Your task to perform on an android device: open device folders in google photos Image 0: 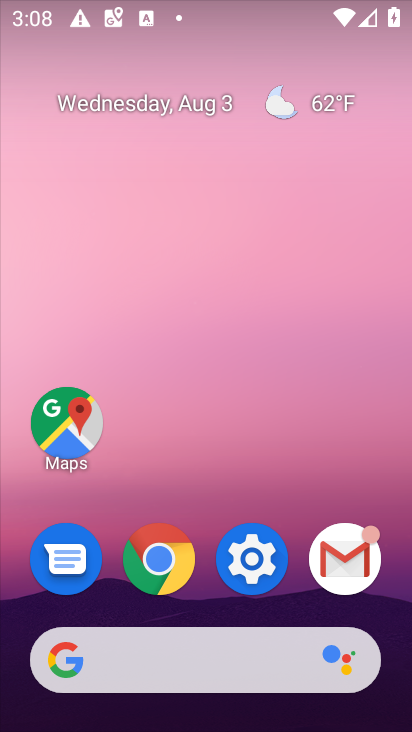
Step 0: press home button
Your task to perform on an android device: open device folders in google photos Image 1: 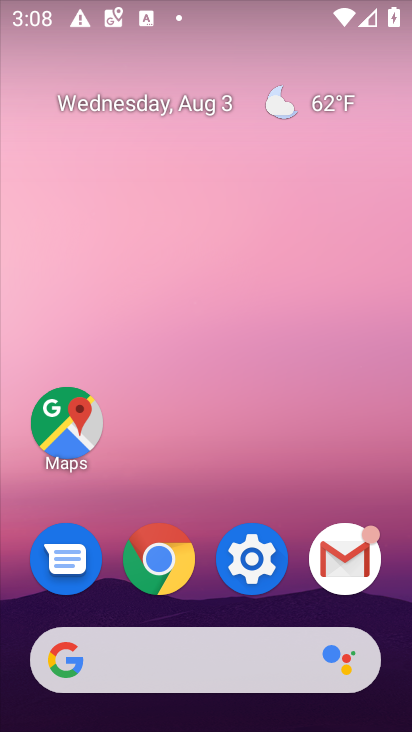
Step 1: drag from (222, 686) to (143, 157)
Your task to perform on an android device: open device folders in google photos Image 2: 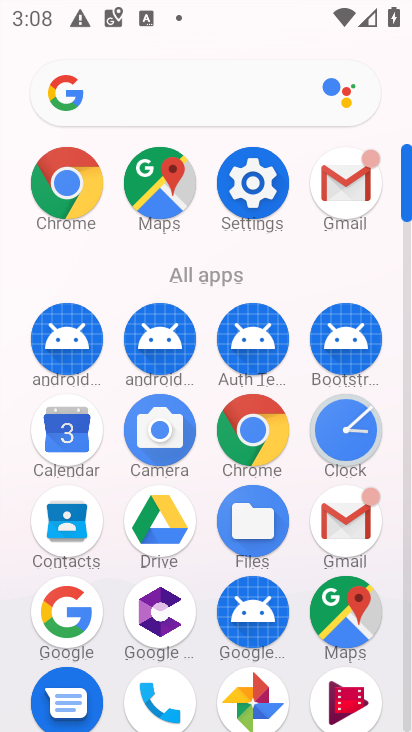
Step 2: click (263, 689)
Your task to perform on an android device: open device folders in google photos Image 3: 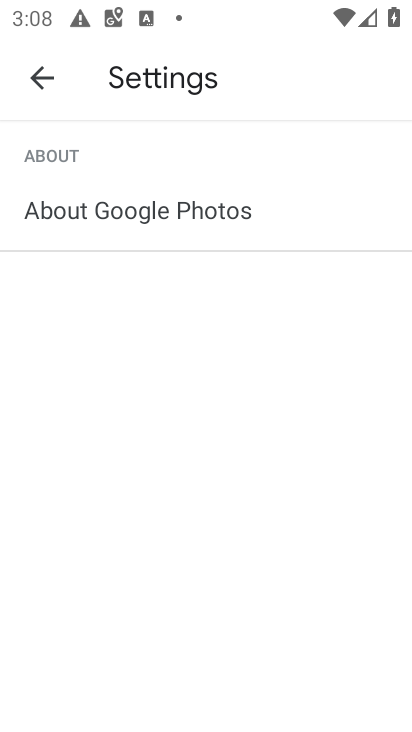
Step 3: click (23, 76)
Your task to perform on an android device: open device folders in google photos Image 4: 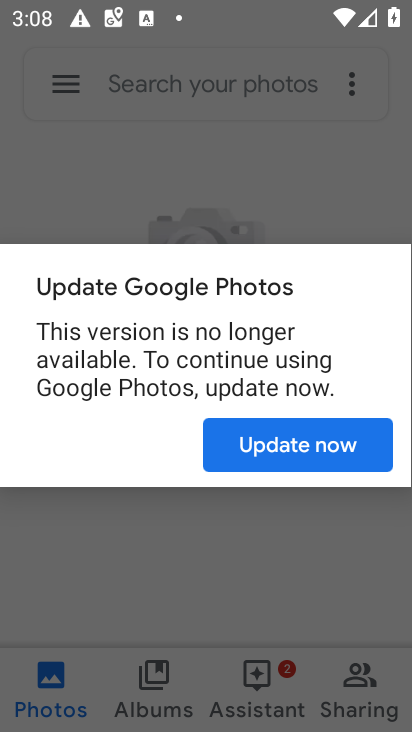
Step 4: click (302, 482)
Your task to perform on an android device: open device folders in google photos Image 5: 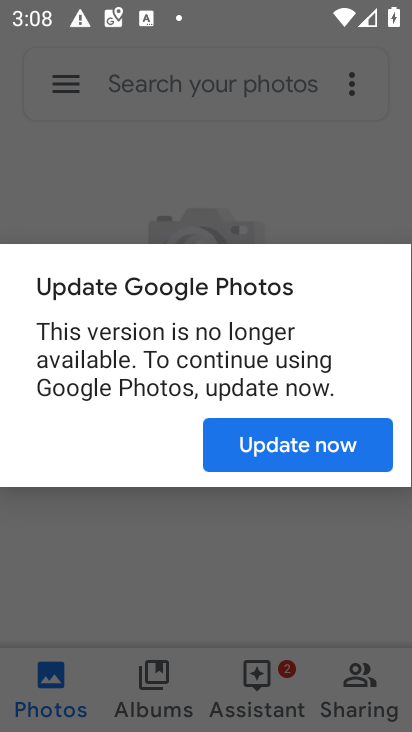
Step 5: click (274, 441)
Your task to perform on an android device: open device folders in google photos Image 6: 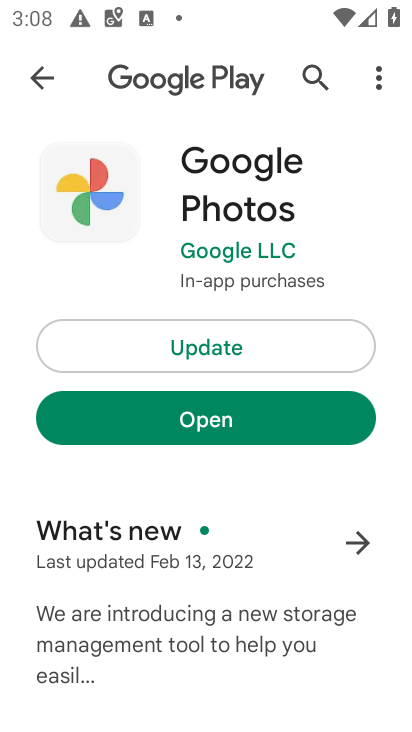
Step 6: click (178, 352)
Your task to perform on an android device: open device folders in google photos Image 7: 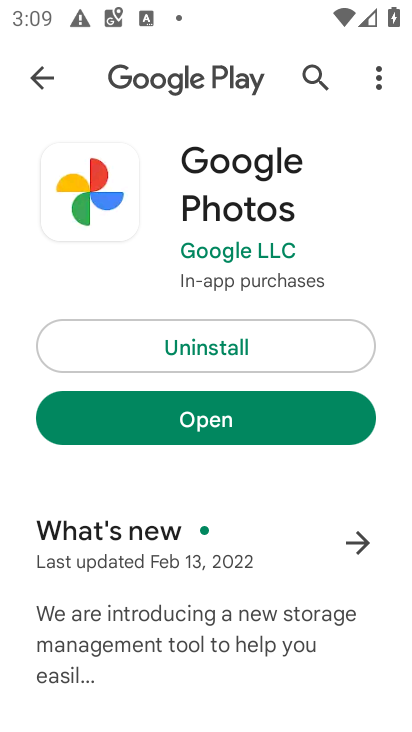
Step 7: click (283, 425)
Your task to perform on an android device: open device folders in google photos Image 8: 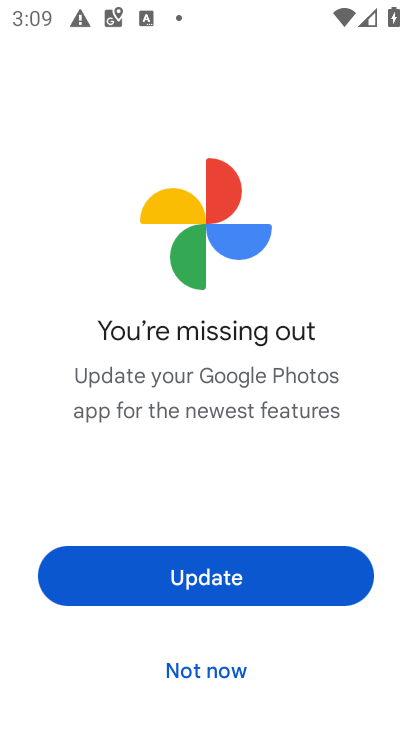
Step 8: click (220, 666)
Your task to perform on an android device: open device folders in google photos Image 9: 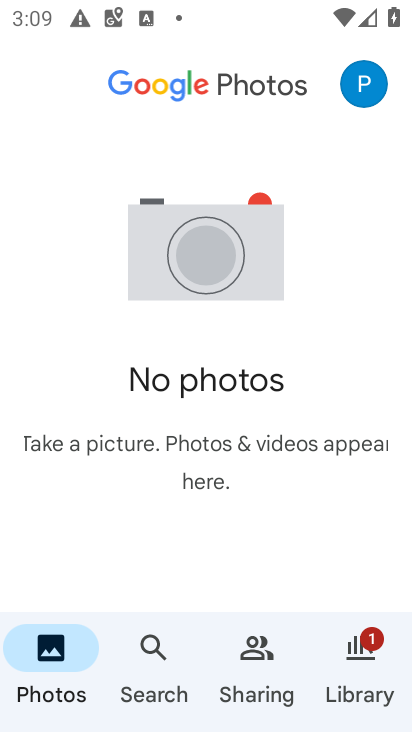
Step 9: click (140, 659)
Your task to perform on an android device: open device folders in google photos Image 10: 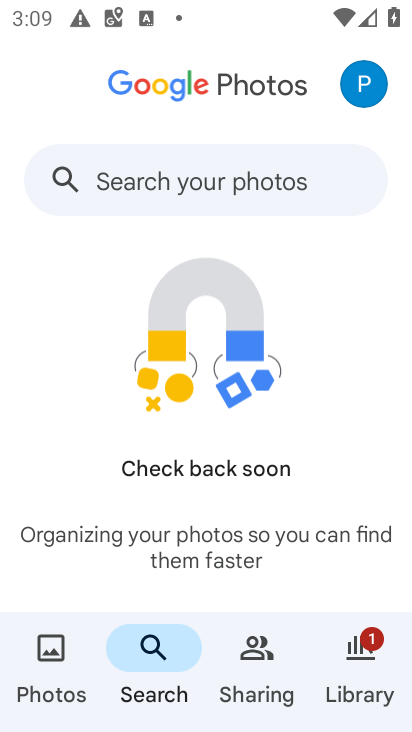
Step 10: click (167, 195)
Your task to perform on an android device: open device folders in google photos Image 11: 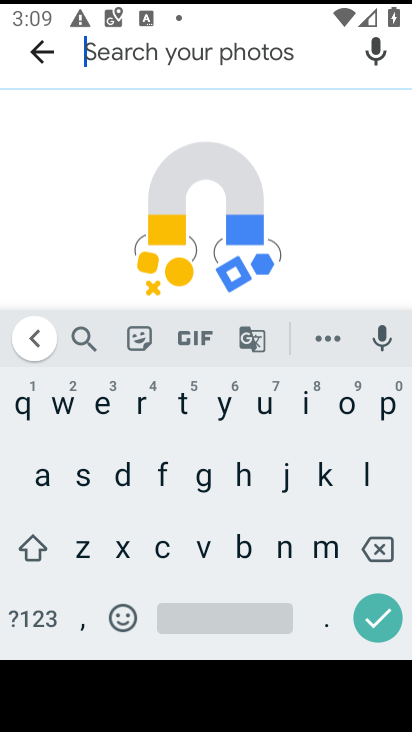
Step 11: click (120, 477)
Your task to perform on an android device: open device folders in google photos Image 12: 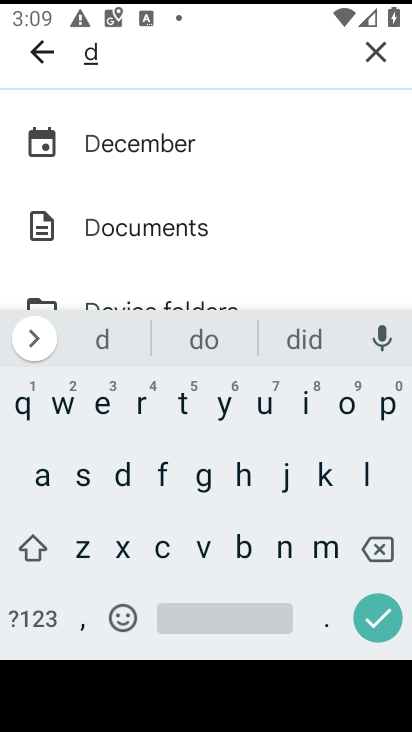
Step 12: click (97, 398)
Your task to perform on an android device: open device folders in google photos Image 13: 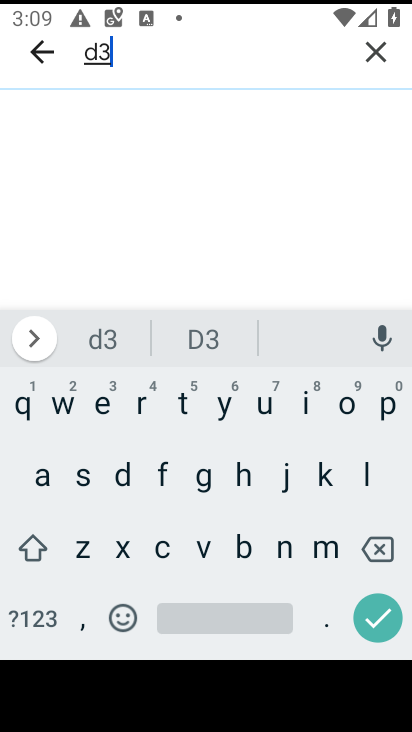
Step 13: click (384, 556)
Your task to perform on an android device: open device folders in google photos Image 14: 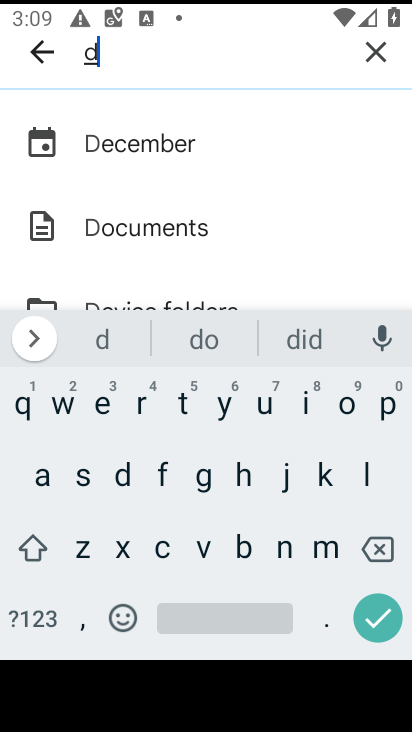
Step 14: click (98, 414)
Your task to perform on an android device: open device folders in google photos Image 15: 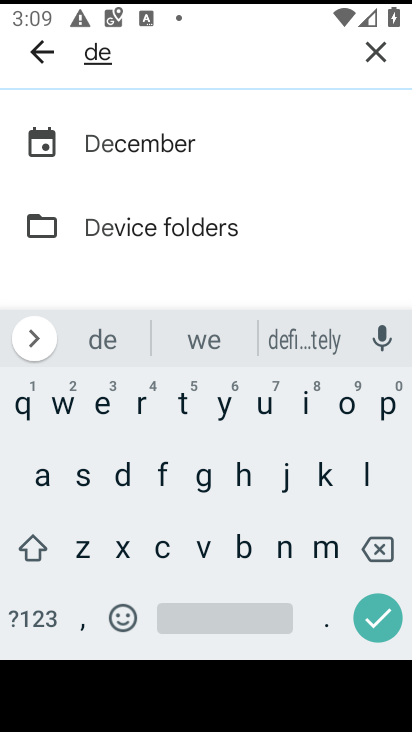
Step 15: click (169, 229)
Your task to perform on an android device: open device folders in google photos Image 16: 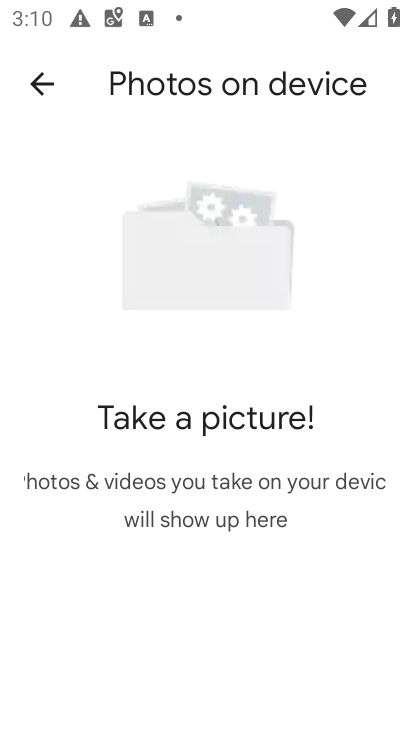
Step 16: task complete